Your task to perform on an android device: turn vacation reply on in the gmail app Image 0: 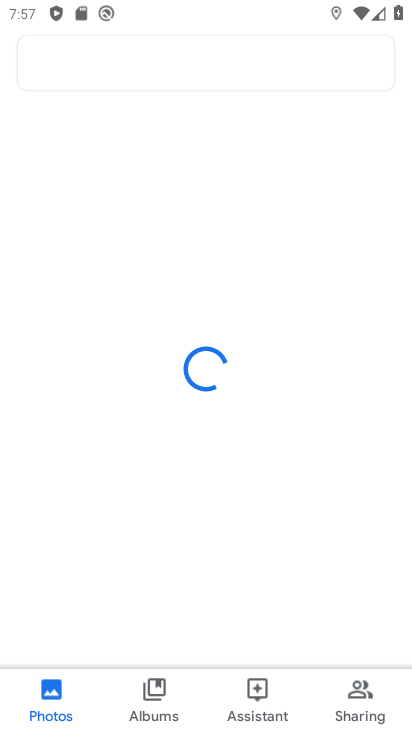
Step 0: press home button
Your task to perform on an android device: turn vacation reply on in the gmail app Image 1: 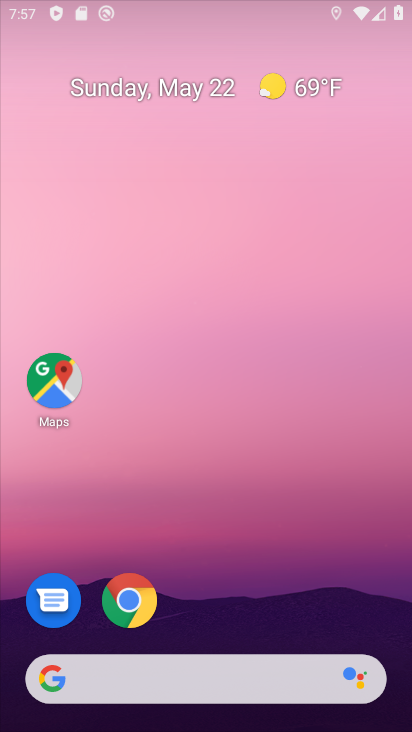
Step 1: drag from (316, 549) to (346, 182)
Your task to perform on an android device: turn vacation reply on in the gmail app Image 2: 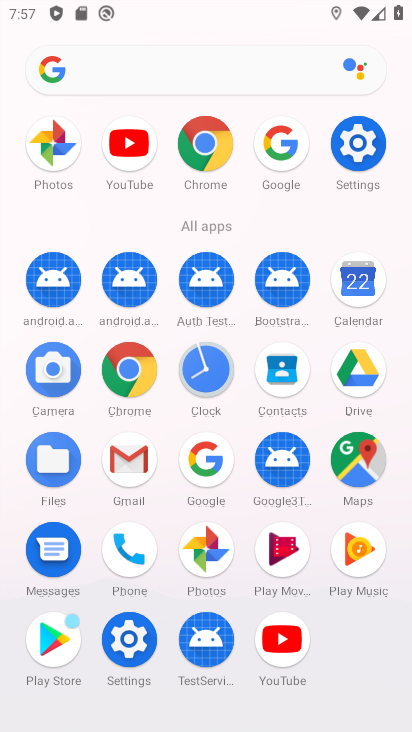
Step 2: click (128, 457)
Your task to perform on an android device: turn vacation reply on in the gmail app Image 3: 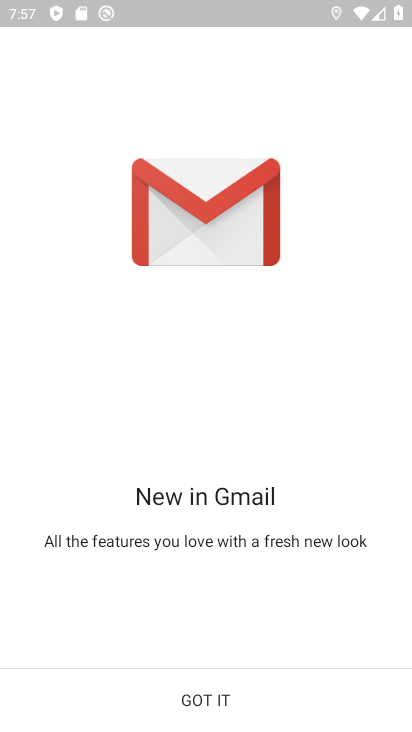
Step 3: click (221, 710)
Your task to perform on an android device: turn vacation reply on in the gmail app Image 4: 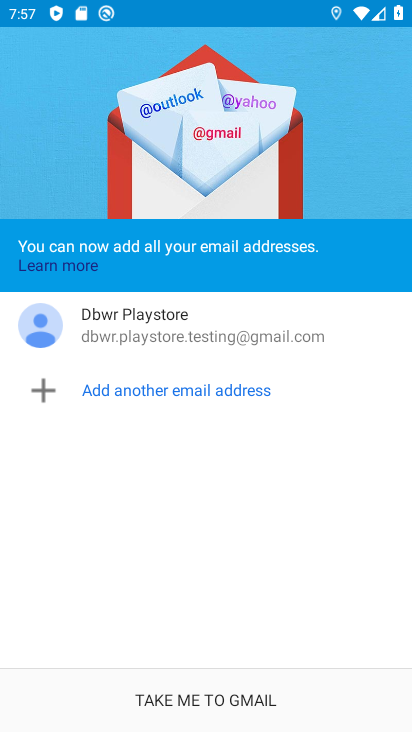
Step 4: click (202, 703)
Your task to perform on an android device: turn vacation reply on in the gmail app Image 5: 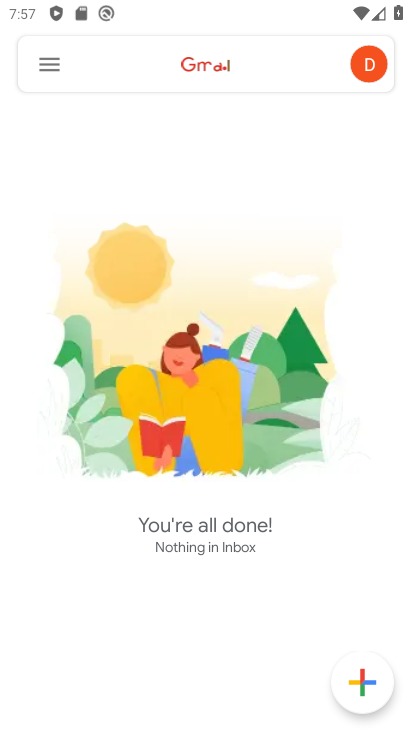
Step 5: click (44, 70)
Your task to perform on an android device: turn vacation reply on in the gmail app Image 6: 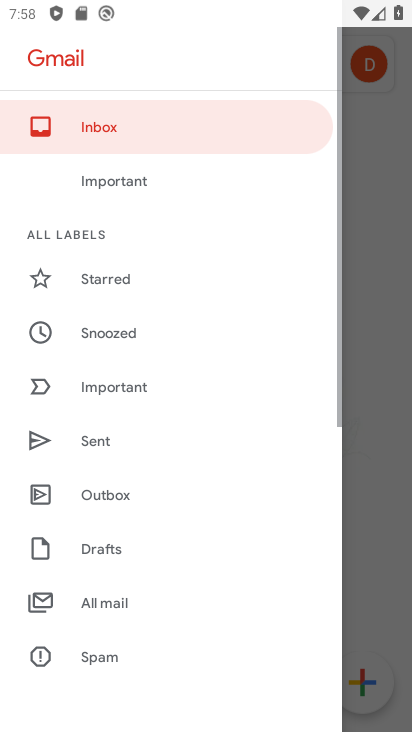
Step 6: drag from (142, 627) to (201, 160)
Your task to perform on an android device: turn vacation reply on in the gmail app Image 7: 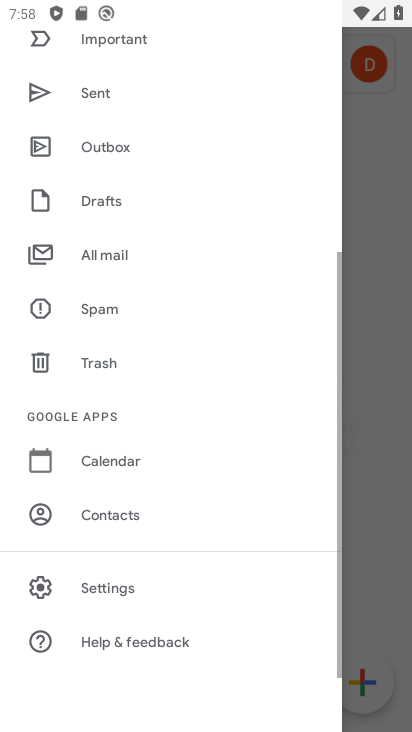
Step 7: click (123, 595)
Your task to perform on an android device: turn vacation reply on in the gmail app Image 8: 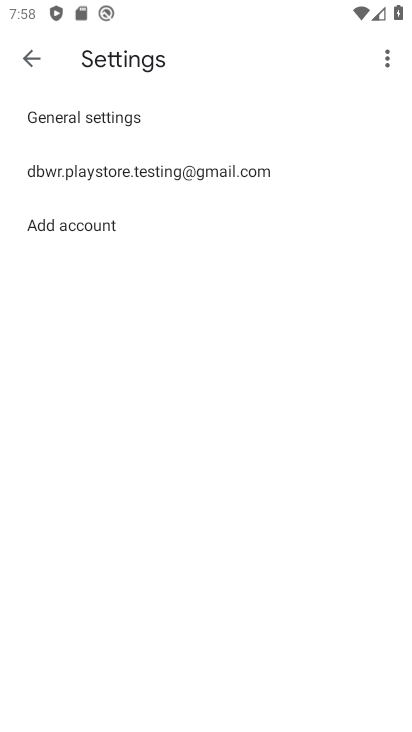
Step 8: click (83, 167)
Your task to perform on an android device: turn vacation reply on in the gmail app Image 9: 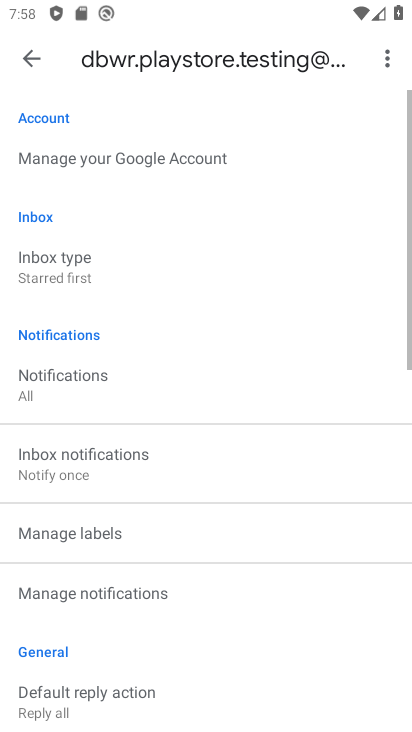
Step 9: drag from (160, 536) to (192, 127)
Your task to perform on an android device: turn vacation reply on in the gmail app Image 10: 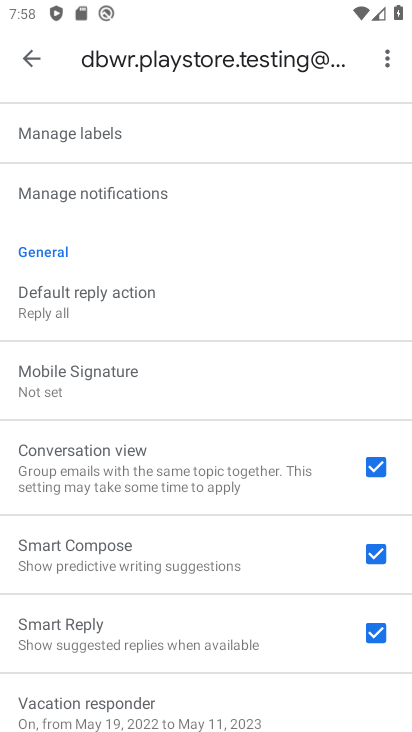
Step 10: click (157, 692)
Your task to perform on an android device: turn vacation reply on in the gmail app Image 11: 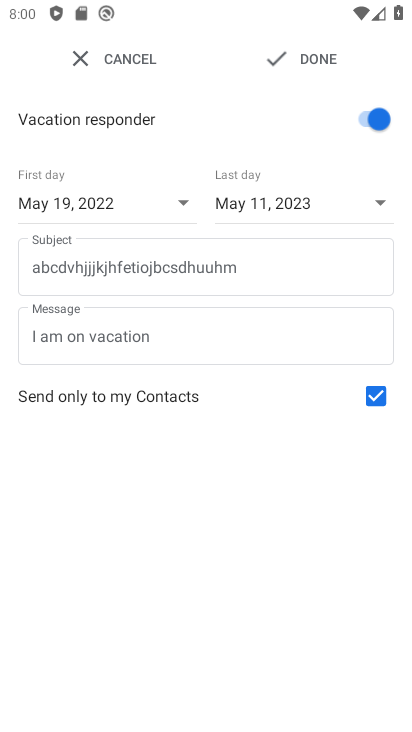
Step 11: task complete